Your task to perform on an android device: manage bookmarks in the chrome app Image 0: 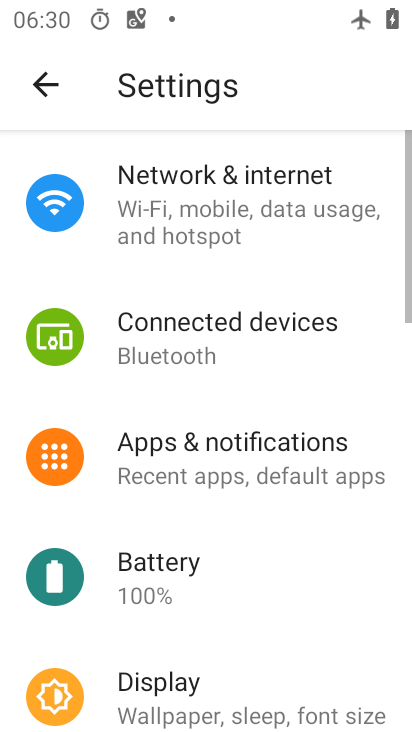
Step 0: press home button
Your task to perform on an android device: manage bookmarks in the chrome app Image 1: 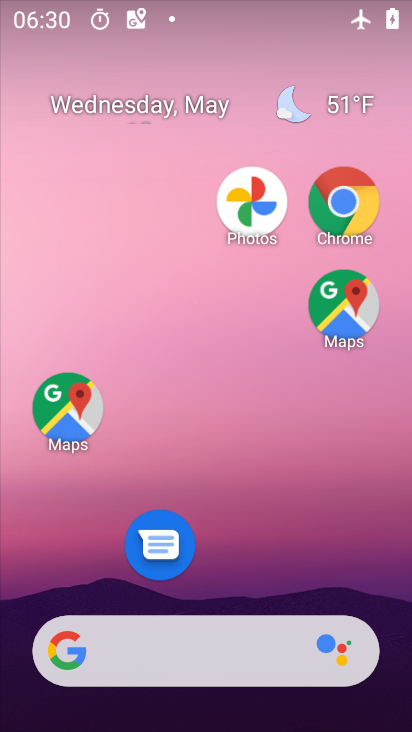
Step 1: click (348, 216)
Your task to perform on an android device: manage bookmarks in the chrome app Image 2: 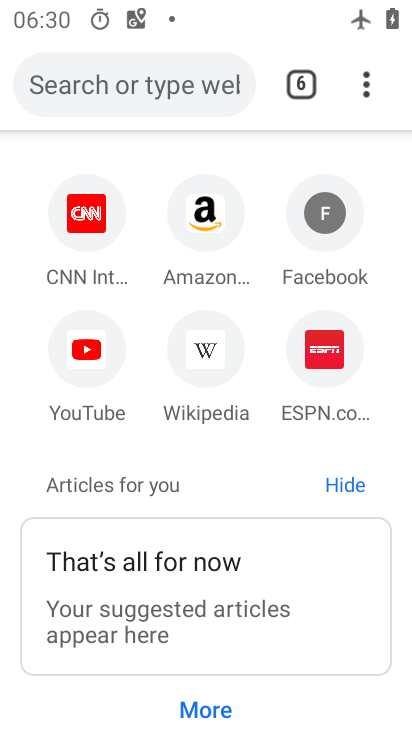
Step 2: click (357, 96)
Your task to perform on an android device: manage bookmarks in the chrome app Image 3: 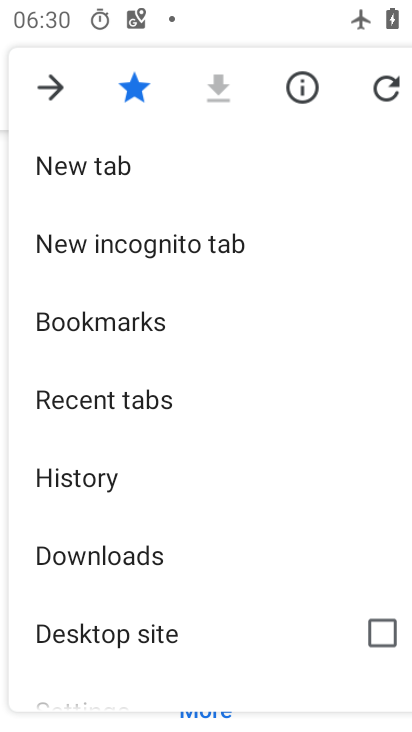
Step 3: click (115, 331)
Your task to perform on an android device: manage bookmarks in the chrome app Image 4: 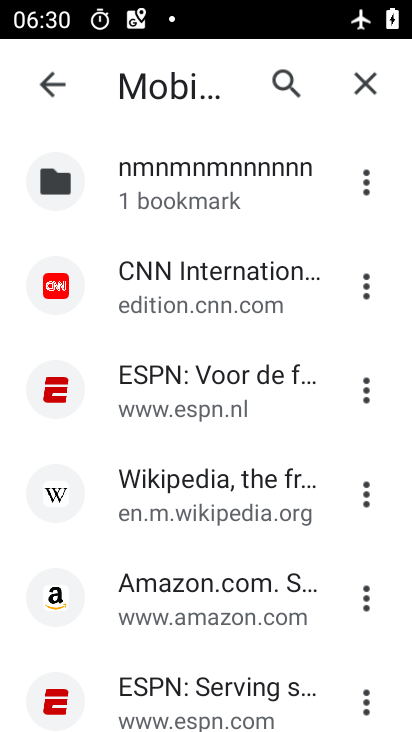
Step 4: click (364, 188)
Your task to perform on an android device: manage bookmarks in the chrome app Image 5: 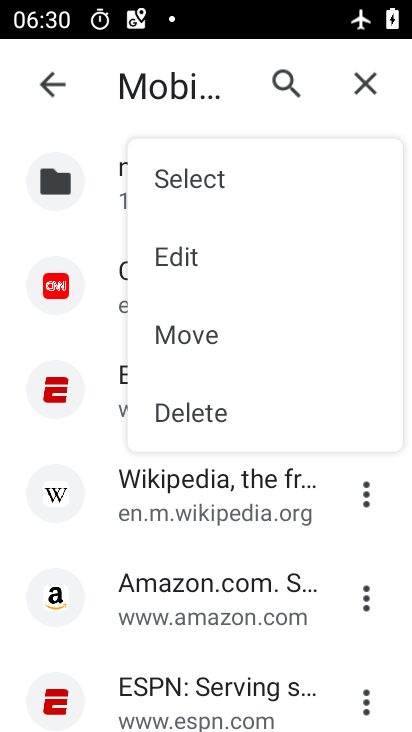
Step 5: click (201, 403)
Your task to perform on an android device: manage bookmarks in the chrome app Image 6: 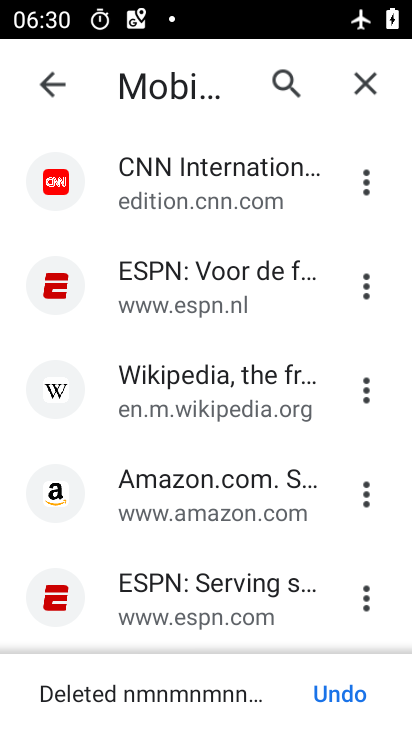
Step 6: task complete